Your task to perform on an android device: turn off location Image 0: 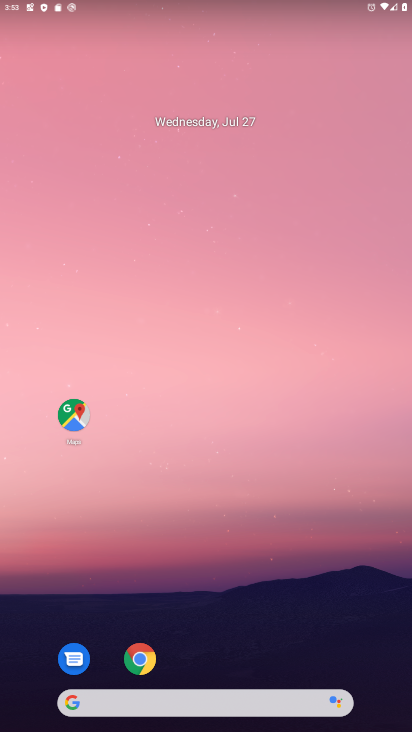
Step 0: drag from (265, 631) to (275, 5)
Your task to perform on an android device: turn off location Image 1: 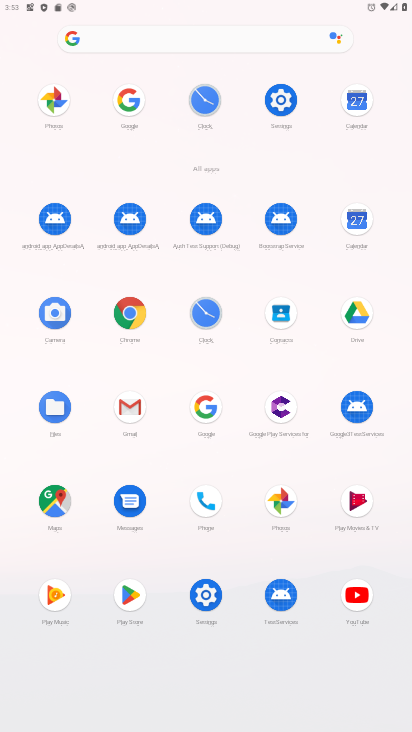
Step 1: click (281, 96)
Your task to perform on an android device: turn off location Image 2: 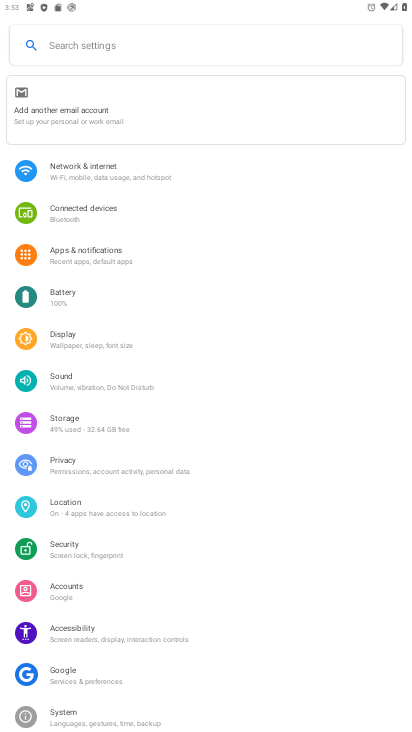
Step 2: click (64, 502)
Your task to perform on an android device: turn off location Image 3: 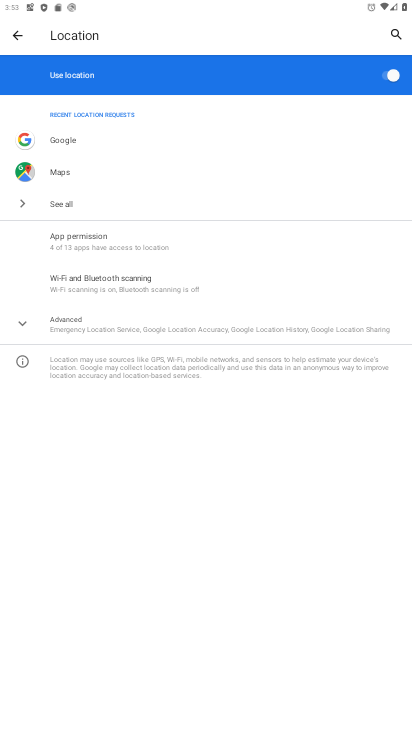
Step 3: click (387, 73)
Your task to perform on an android device: turn off location Image 4: 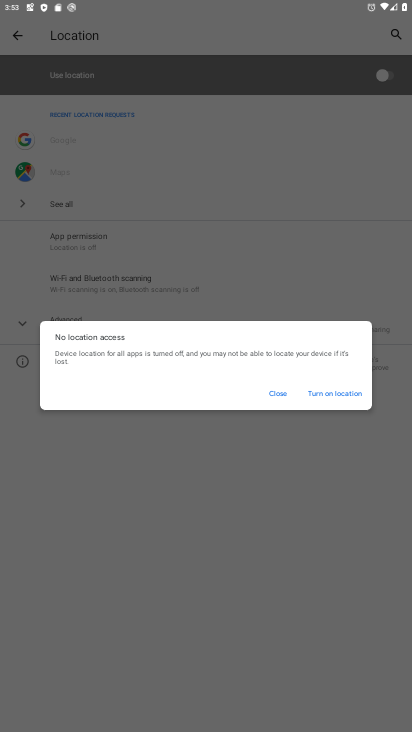
Step 4: task complete